Your task to perform on an android device: Turn on the flashlight Image 0: 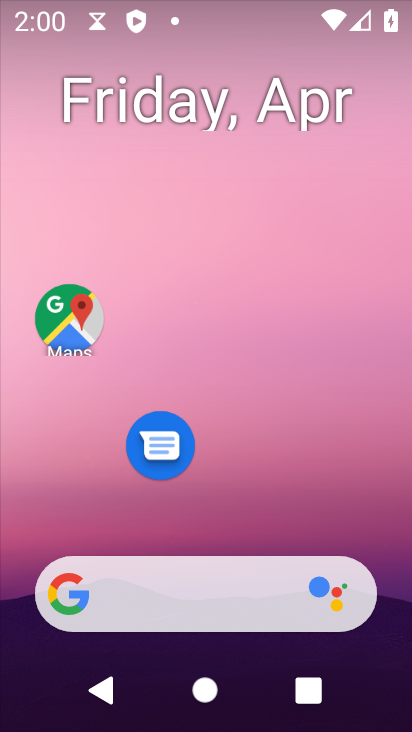
Step 0: drag from (279, 507) to (306, 92)
Your task to perform on an android device: Turn on the flashlight Image 1: 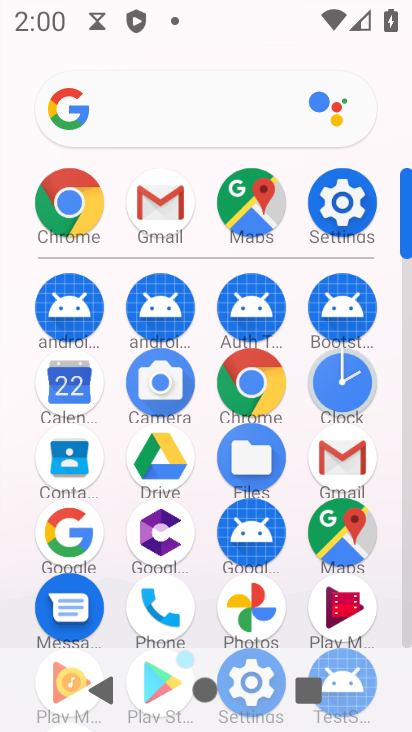
Step 1: click (347, 203)
Your task to perform on an android device: Turn on the flashlight Image 2: 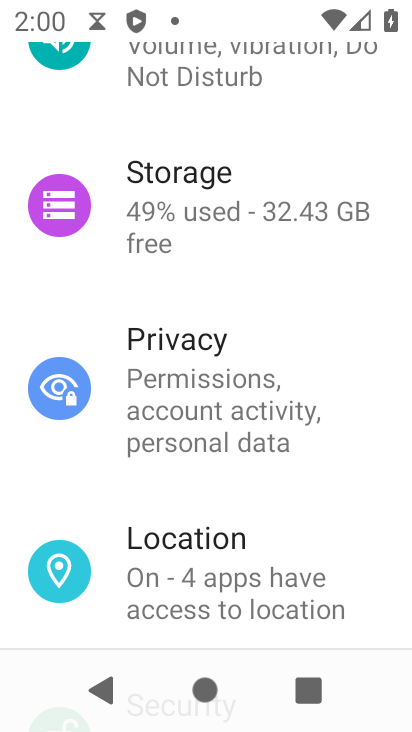
Step 2: task complete